Your task to perform on an android device: Search for seafood restaurants on Google Maps Image 0: 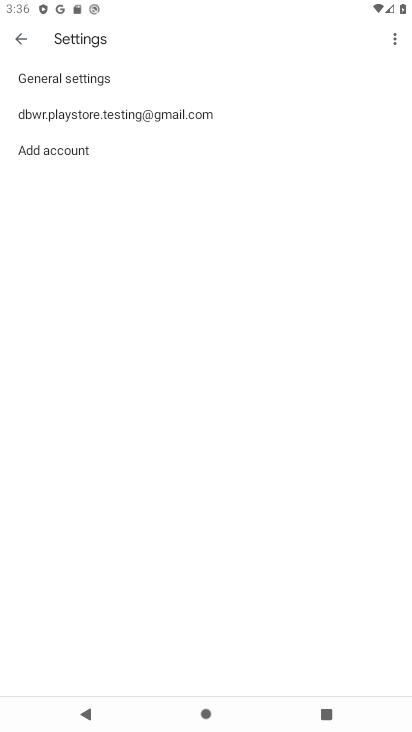
Step 0: press home button
Your task to perform on an android device: Search for seafood restaurants on Google Maps Image 1: 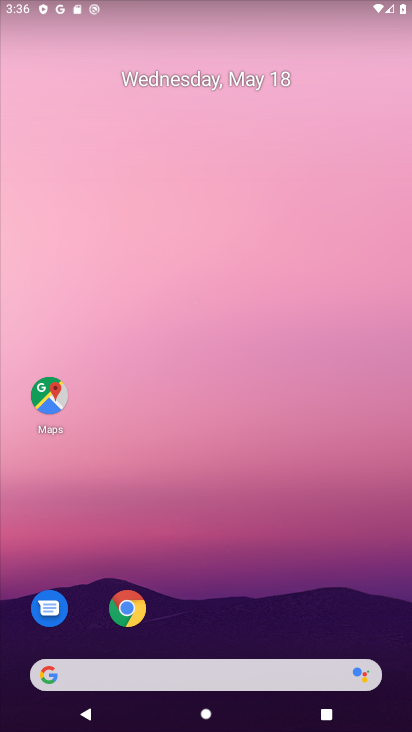
Step 1: click (57, 399)
Your task to perform on an android device: Search for seafood restaurants on Google Maps Image 2: 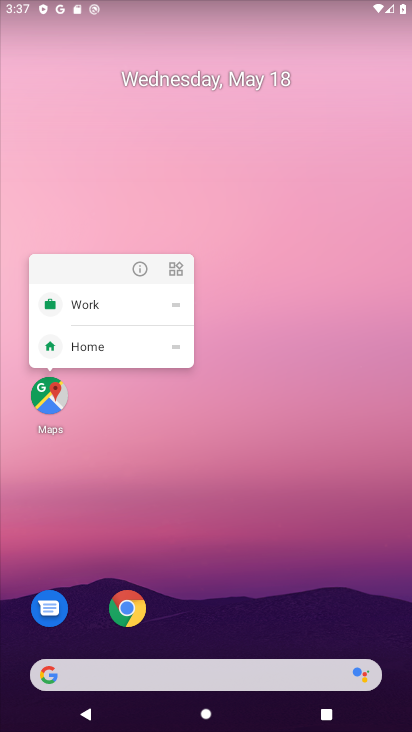
Step 2: click (43, 411)
Your task to perform on an android device: Search for seafood restaurants on Google Maps Image 3: 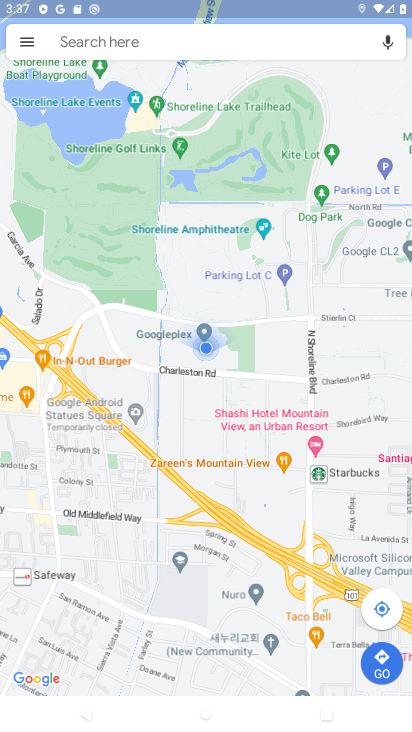
Step 3: click (203, 47)
Your task to perform on an android device: Search for seafood restaurants on Google Maps Image 4: 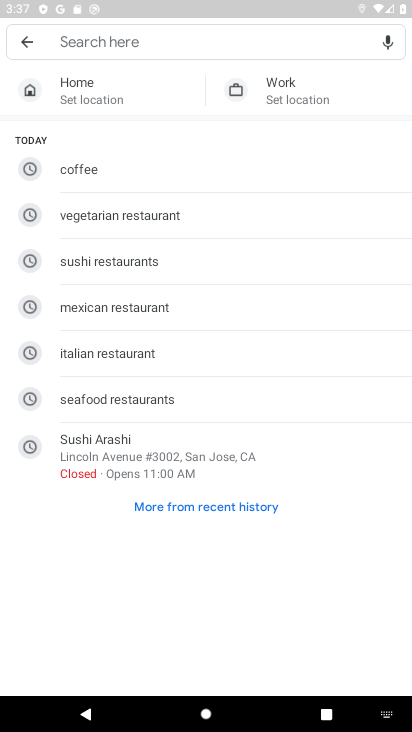
Step 4: click (120, 397)
Your task to perform on an android device: Search for seafood restaurants on Google Maps Image 5: 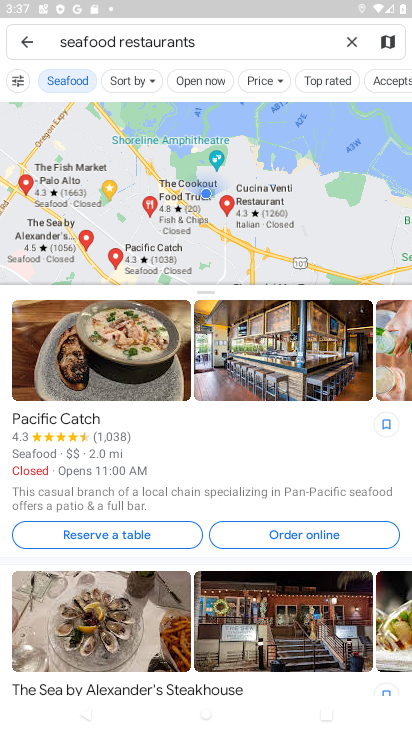
Step 5: task complete